Your task to perform on an android device: toggle translation in the chrome app Image 0: 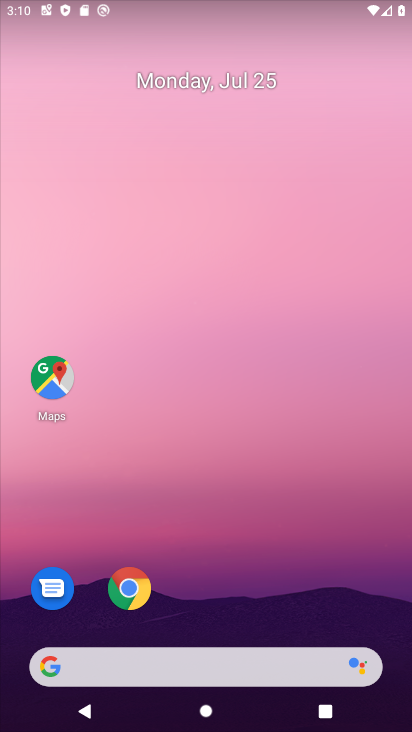
Step 0: click (133, 581)
Your task to perform on an android device: toggle translation in the chrome app Image 1: 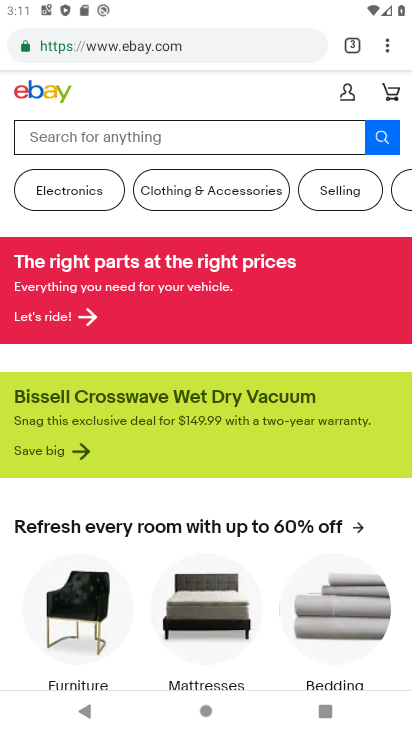
Step 1: click (386, 38)
Your task to perform on an android device: toggle translation in the chrome app Image 2: 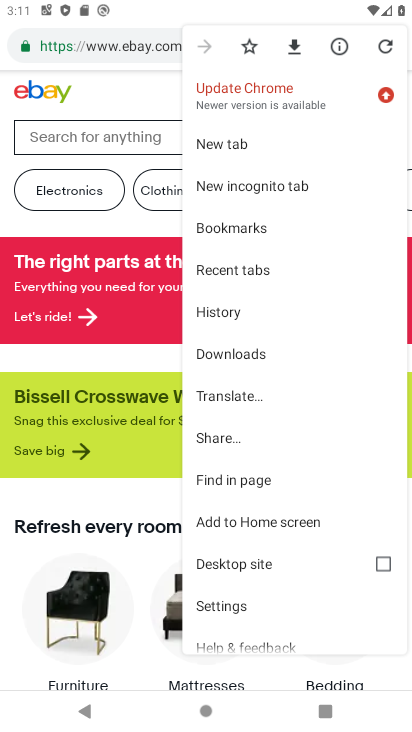
Step 2: click (247, 608)
Your task to perform on an android device: toggle translation in the chrome app Image 3: 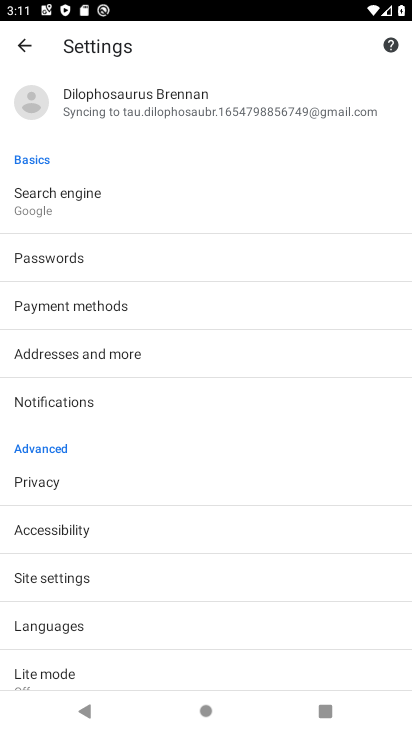
Step 3: click (137, 622)
Your task to perform on an android device: toggle translation in the chrome app Image 4: 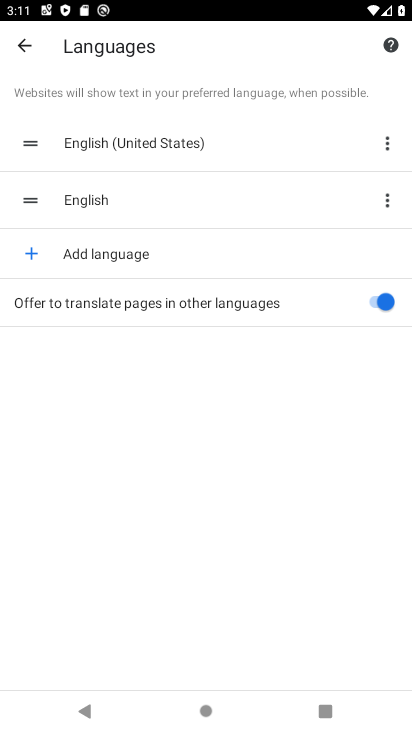
Step 4: click (358, 315)
Your task to perform on an android device: toggle translation in the chrome app Image 5: 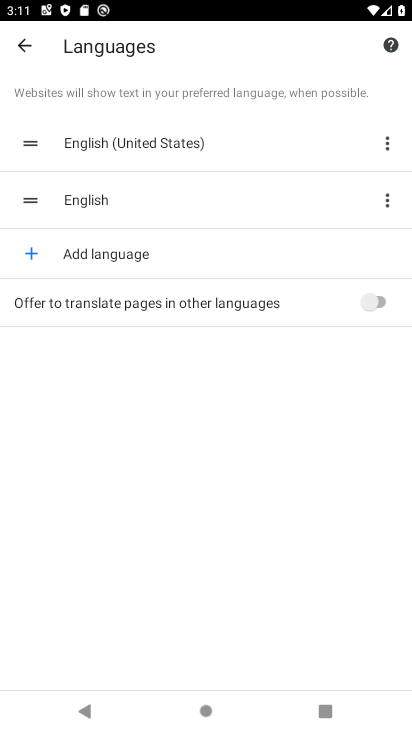
Step 5: task complete